Your task to perform on an android device: Search for hotels in NYC Image 0: 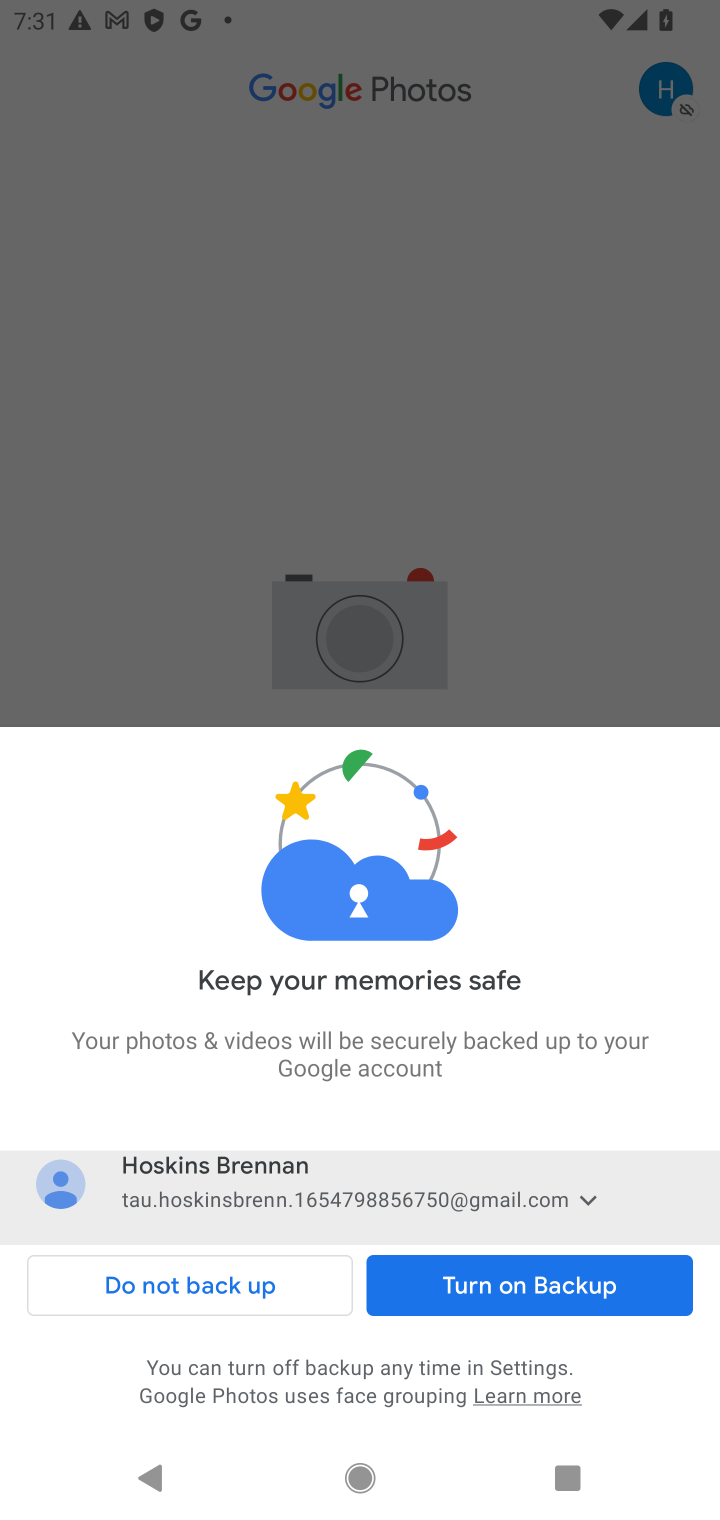
Step 0: press home button
Your task to perform on an android device: Search for hotels in NYC Image 1: 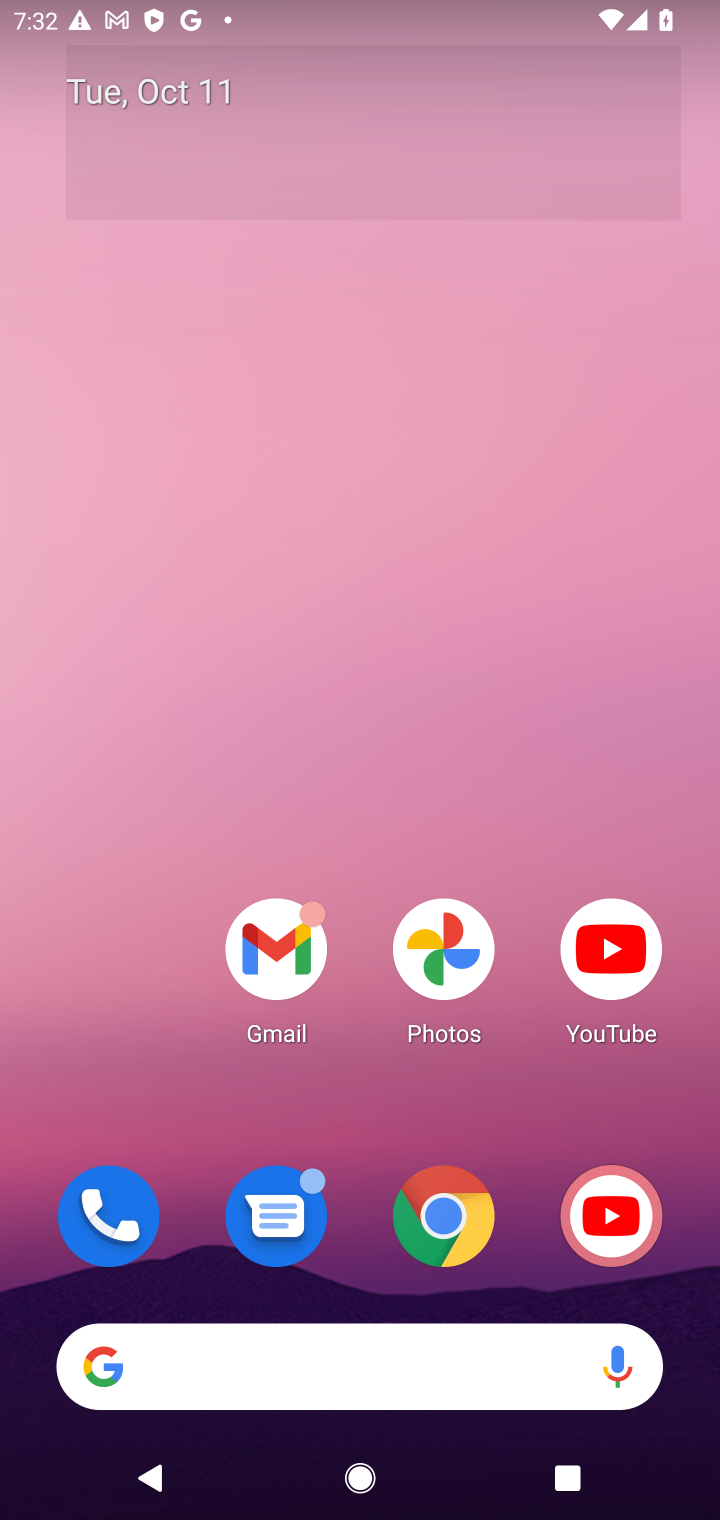
Step 1: click (443, 1201)
Your task to perform on an android device: Search for hotels in NYC Image 2: 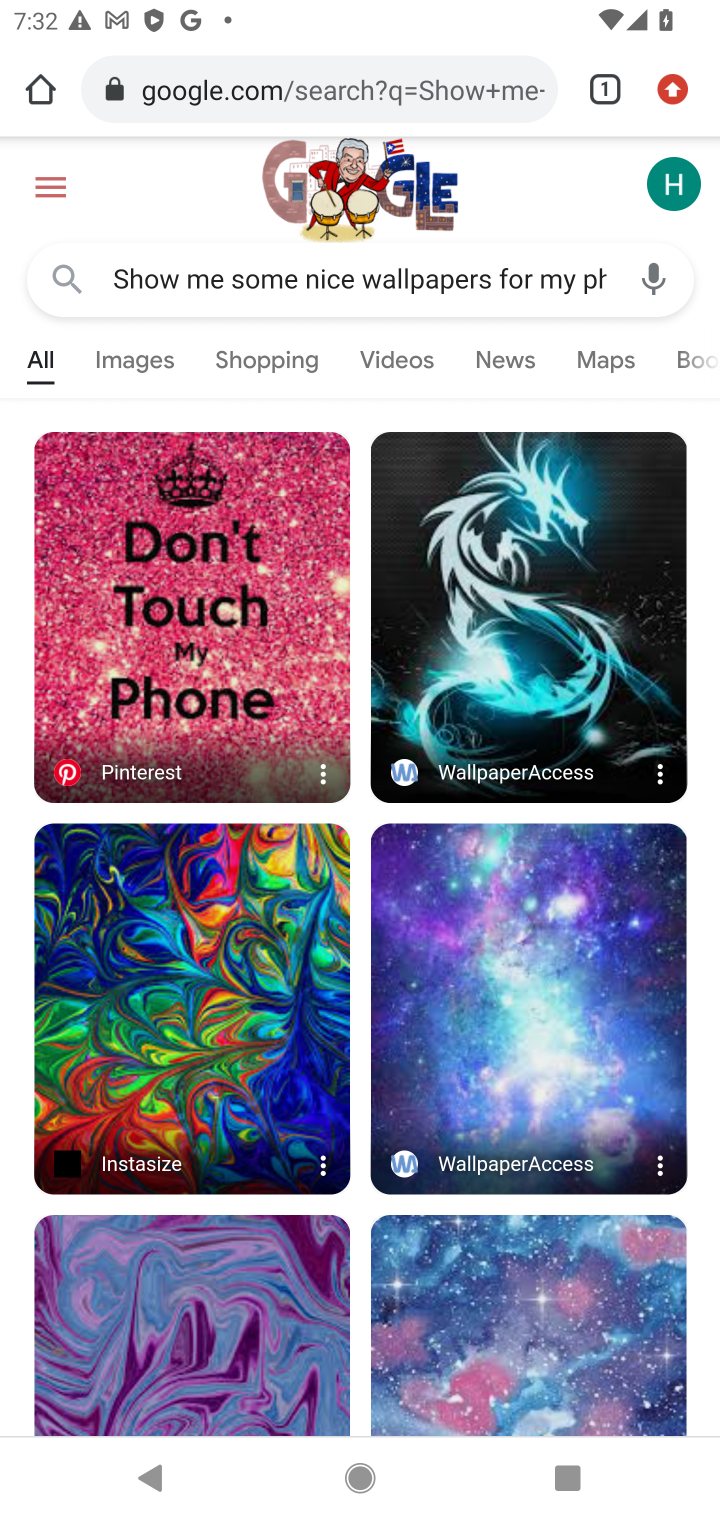
Step 2: click (363, 298)
Your task to perform on an android device: Search for hotels in NYC Image 3: 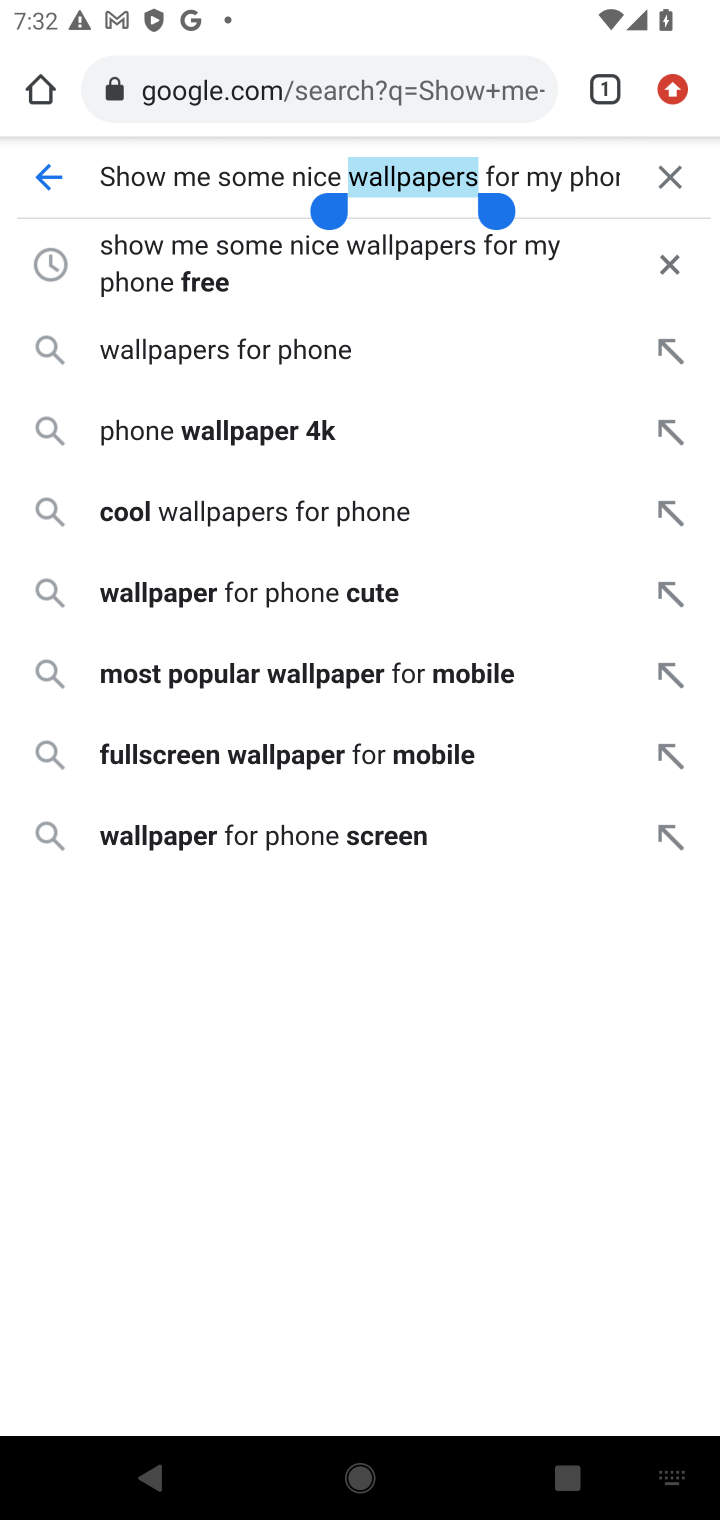
Step 3: click (649, 187)
Your task to perform on an android device: Search for hotels in NYC Image 4: 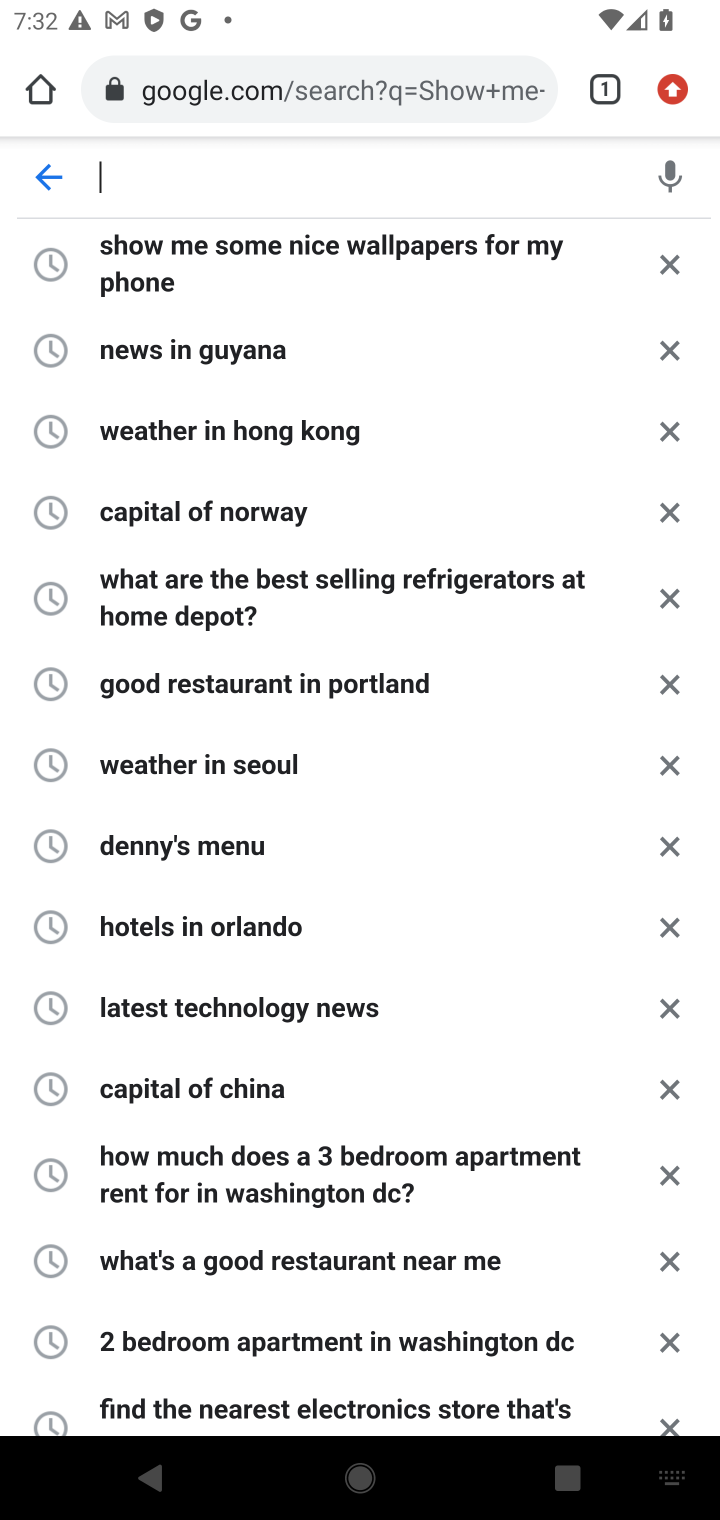
Step 4: type "hotels in nyc"
Your task to perform on an android device: Search for hotels in NYC Image 5: 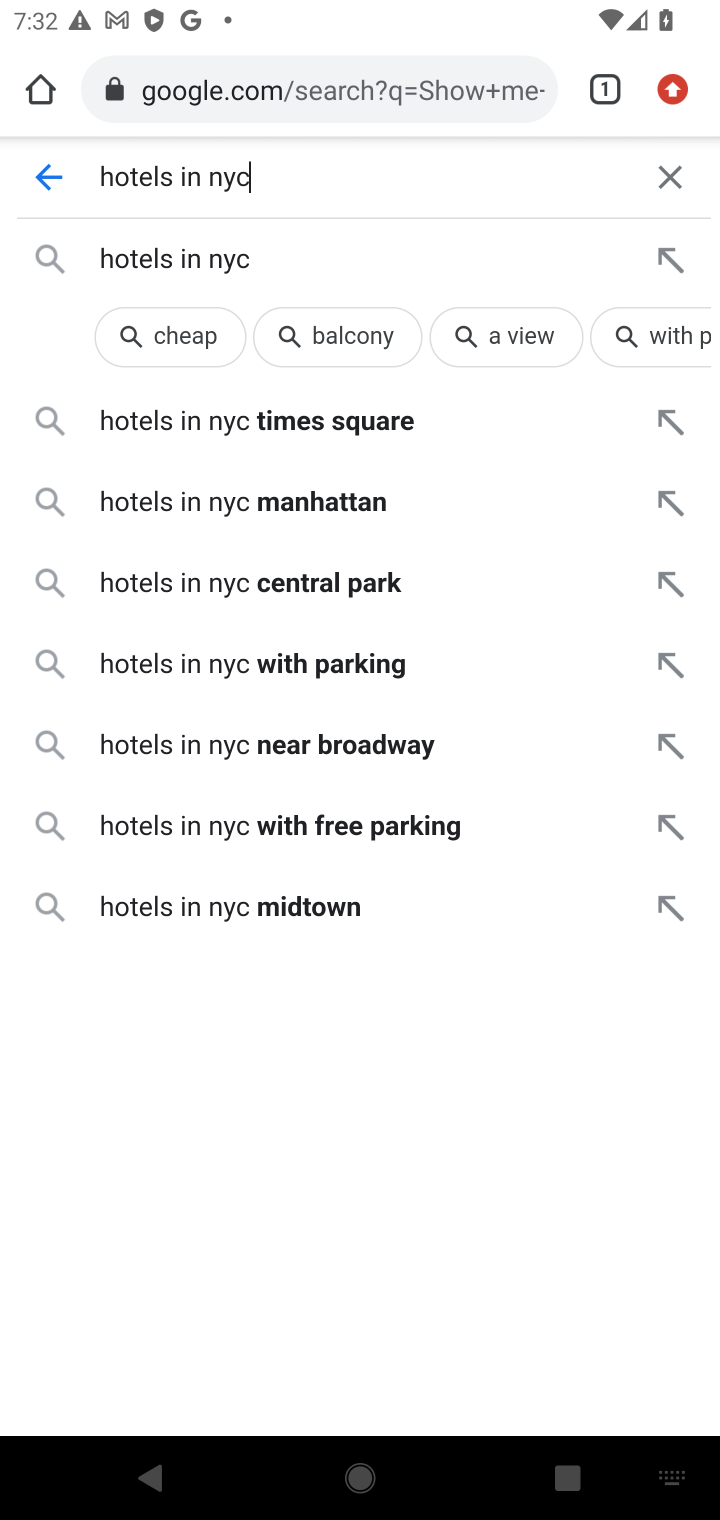
Step 5: press enter
Your task to perform on an android device: Search for hotels in NYC Image 6: 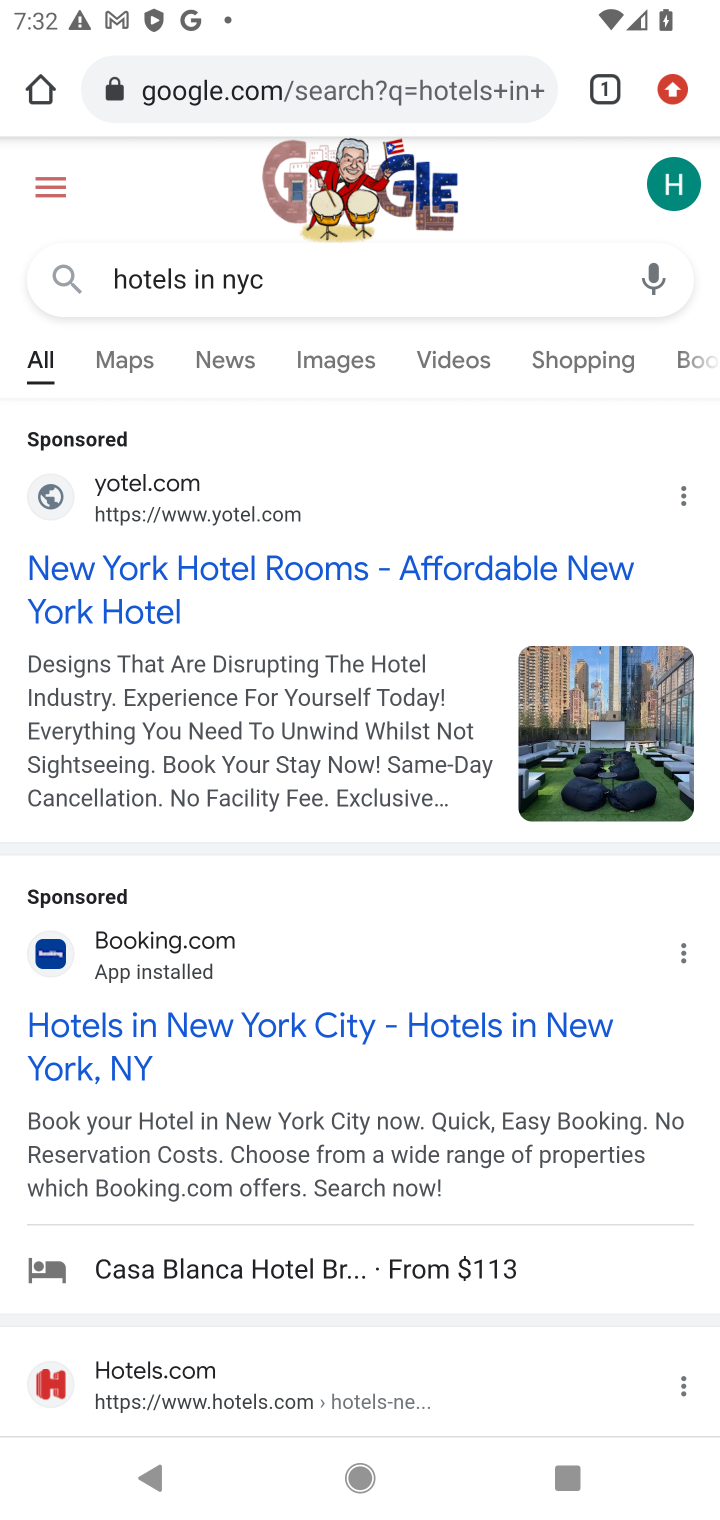
Step 6: task complete